Your task to perform on an android device: Go to CNN.com Image 0: 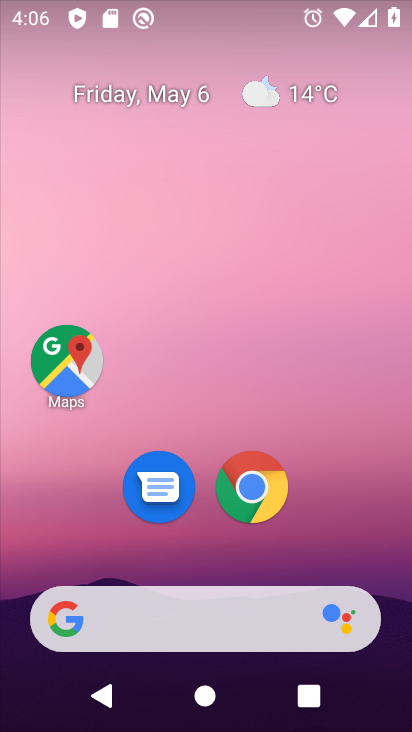
Step 0: drag from (226, 562) to (233, 60)
Your task to perform on an android device: Go to CNN.com Image 1: 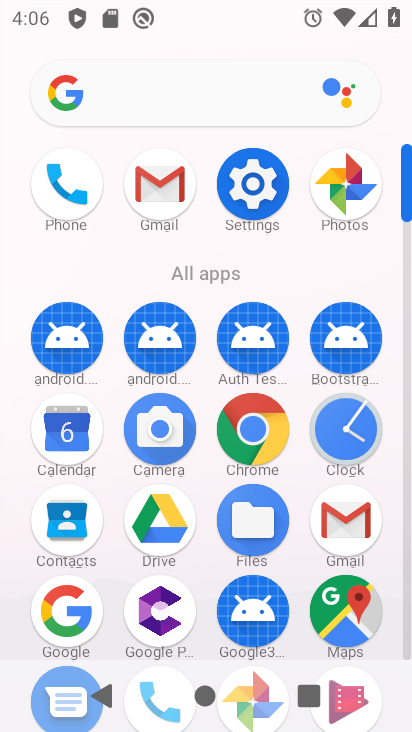
Step 1: click (240, 430)
Your task to perform on an android device: Go to CNN.com Image 2: 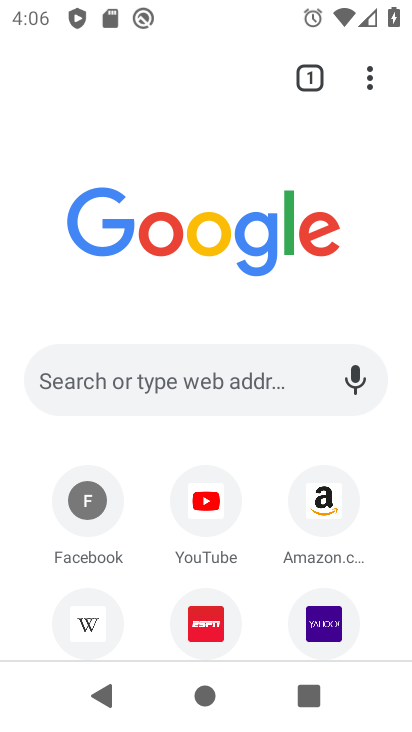
Step 2: click (198, 393)
Your task to perform on an android device: Go to CNN.com Image 3: 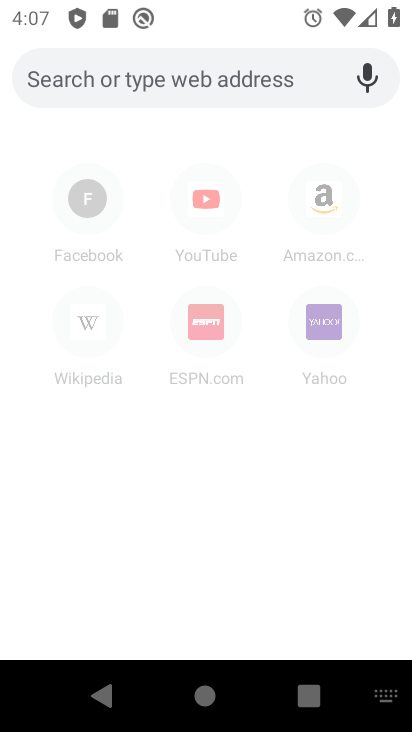
Step 3: type "cnn,com"
Your task to perform on an android device: Go to CNN.com Image 4: 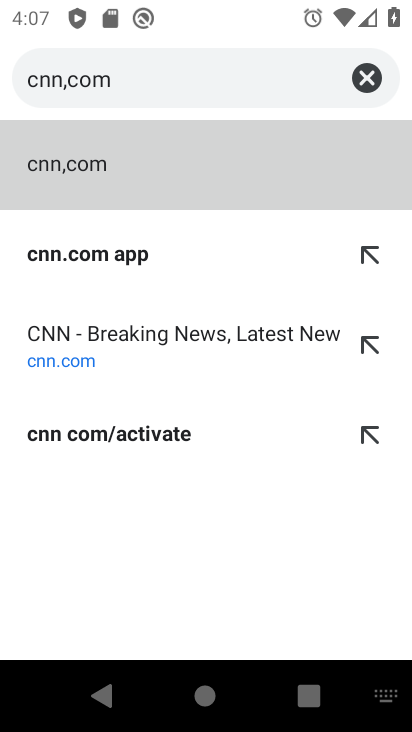
Step 4: click (110, 338)
Your task to perform on an android device: Go to CNN.com Image 5: 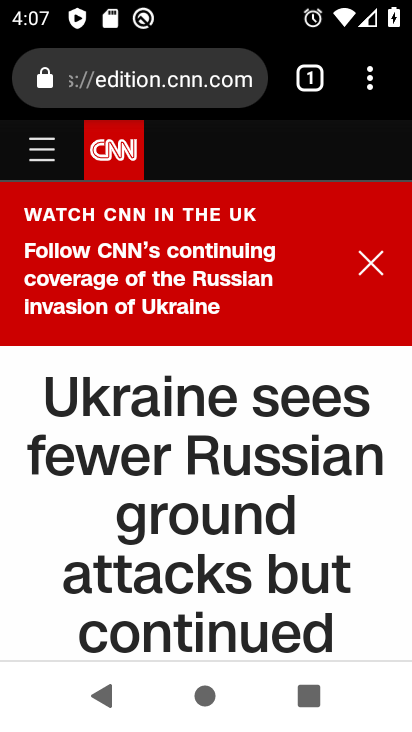
Step 5: task complete